Your task to perform on an android device: delete location history Image 0: 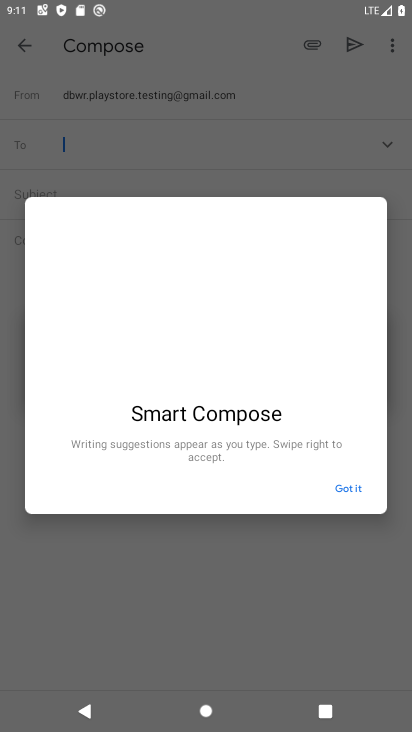
Step 0: press home button
Your task to perform on an android device: delete location history Image 1: 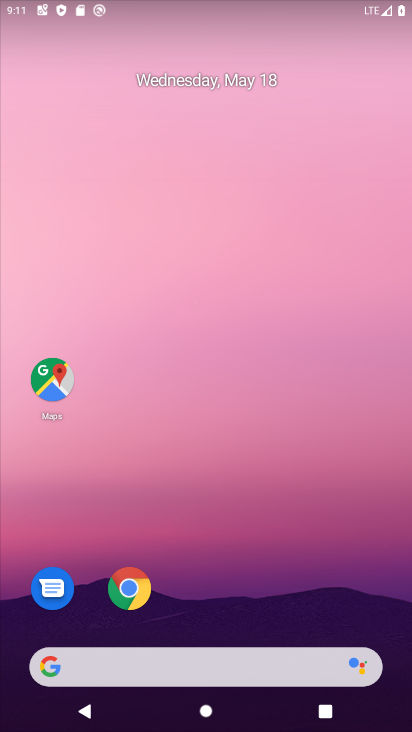
Step 1: click (56, 380)
Your task to perform on an android device: delete location history Image 2: 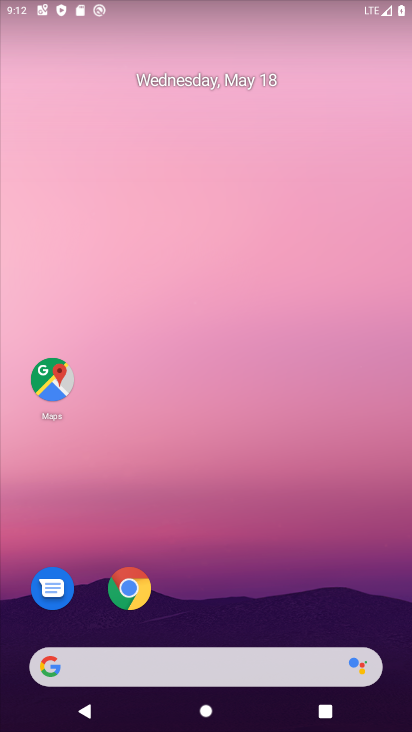
Step 2: click (54, 383)
Your task to perform on an android device: delete location history Image 3: 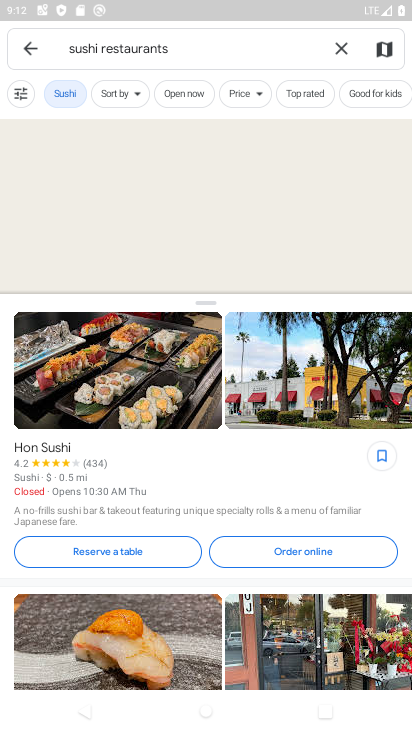
Step 3: click (339, 49)
Your task to perform on an android device: delete location history Image 4: 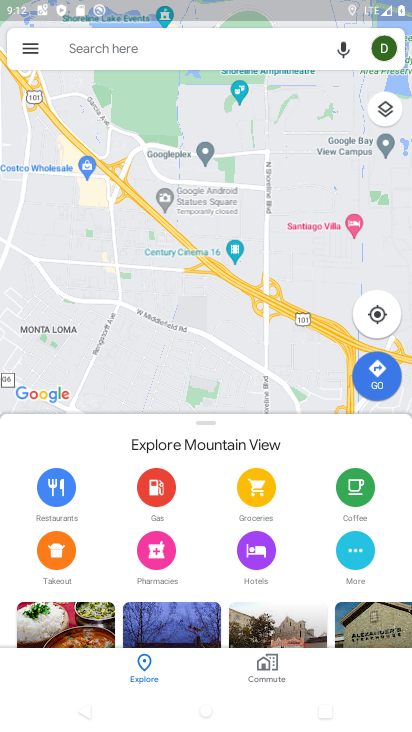
Step 4: click (27, 44)
Your task to perform on an android device: delete location history Image 5: 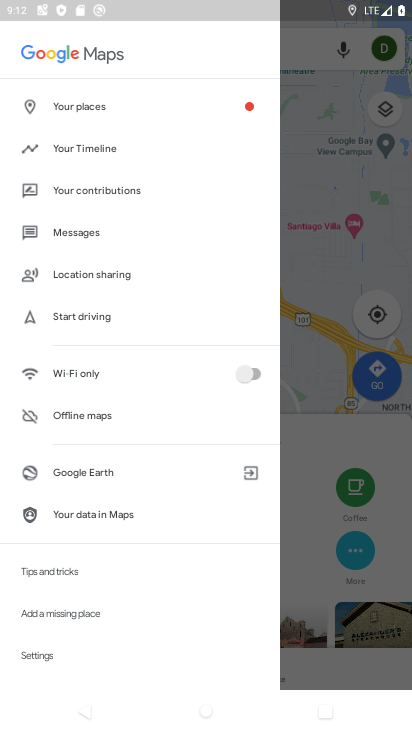
Step 5: click (59, 149)
Your task to perform on an android device: delete location history Image 6: 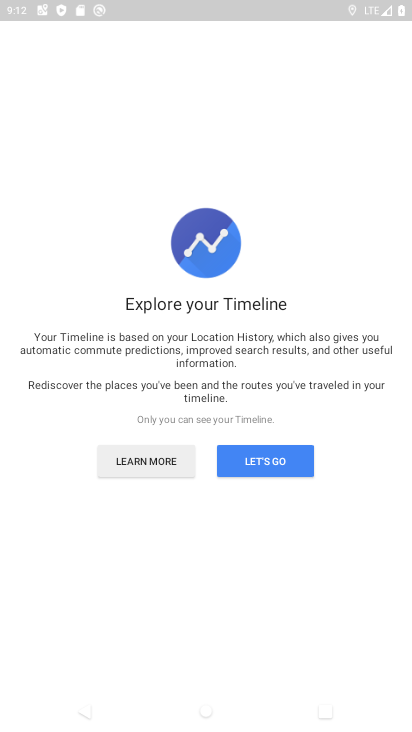
Step 6: click (270, 475)
Your task to perform on an android device: delete location history Image 7: 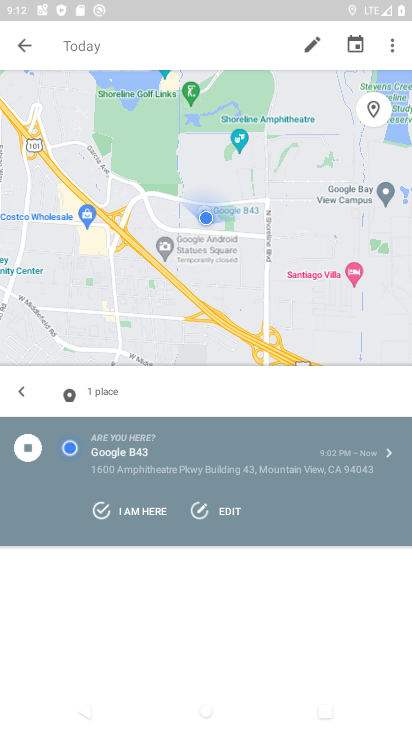
Step 7: click (392, 49)
Your task to perform on an android device: delete location history Image 8: 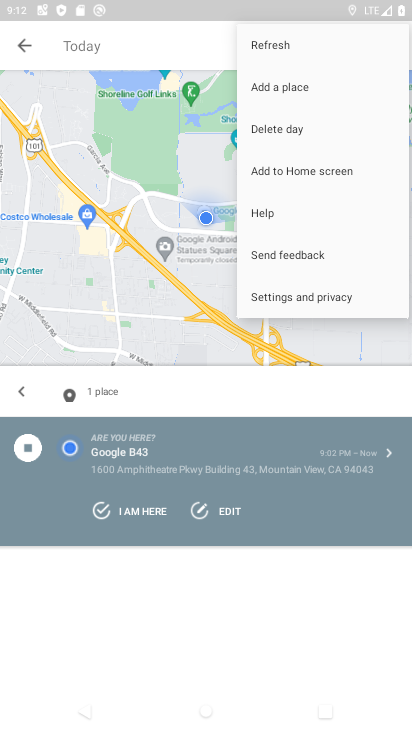
Step 8: click (303, 300)
Your task to perform on an android device: delete location history Image 9: 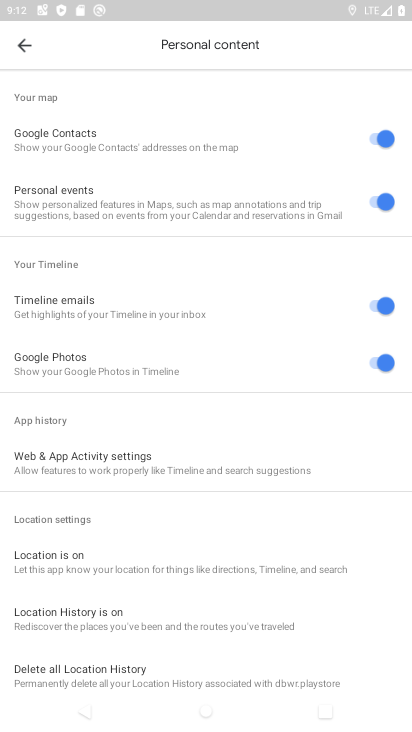
Step 9: click (76, 669)
Your task to perform on an android device: delete location history Image 10: 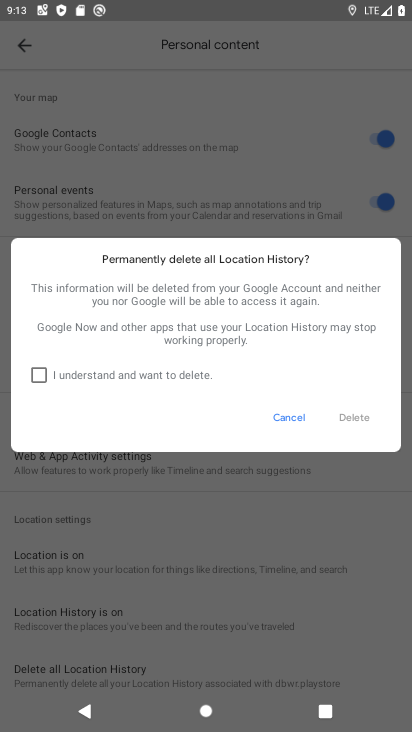
Step 10: click (35, 373)
Your task to perform on an android device: delete location history Image 11: 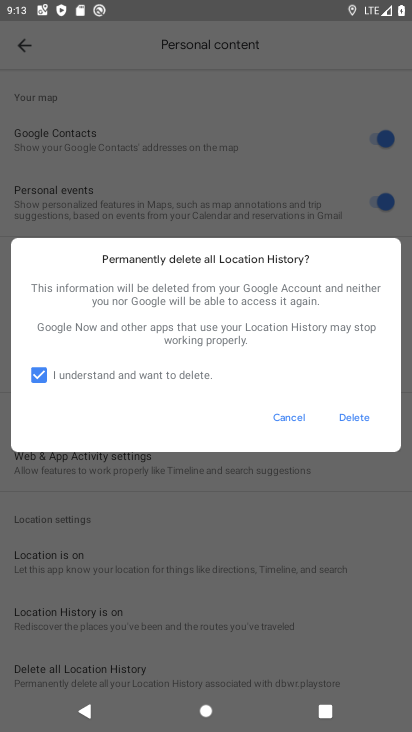
Step 11: click (367, 412)
Your task to perform on an android device: delete location history Image 12: 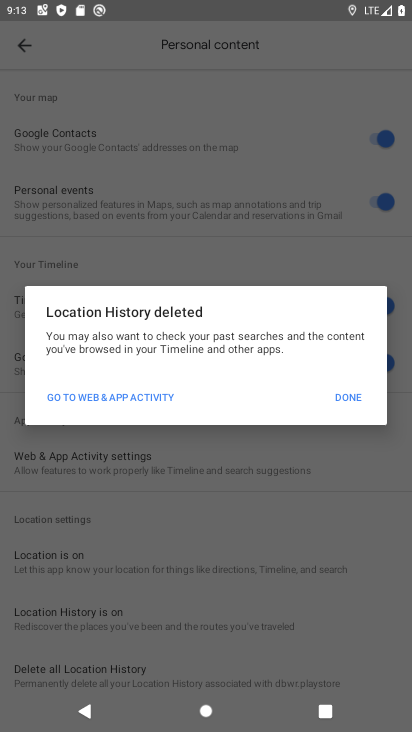
Step 12: click (344, 401)
Your task to perform on an android device: delete location history Image 13: 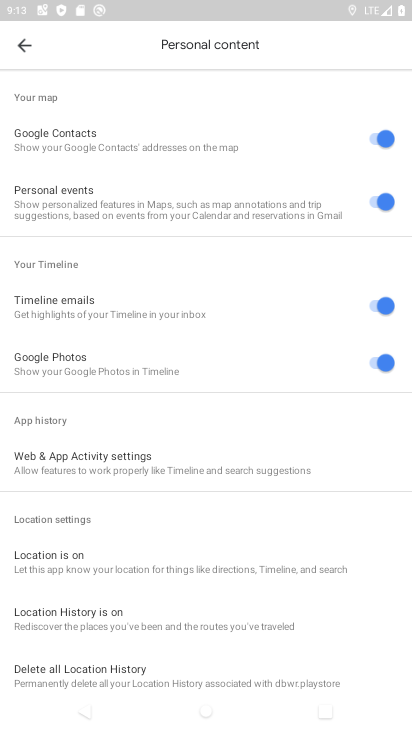
Step 13: task complete